Your task to perform on an android device: Search for hotels in Boston Image 0: 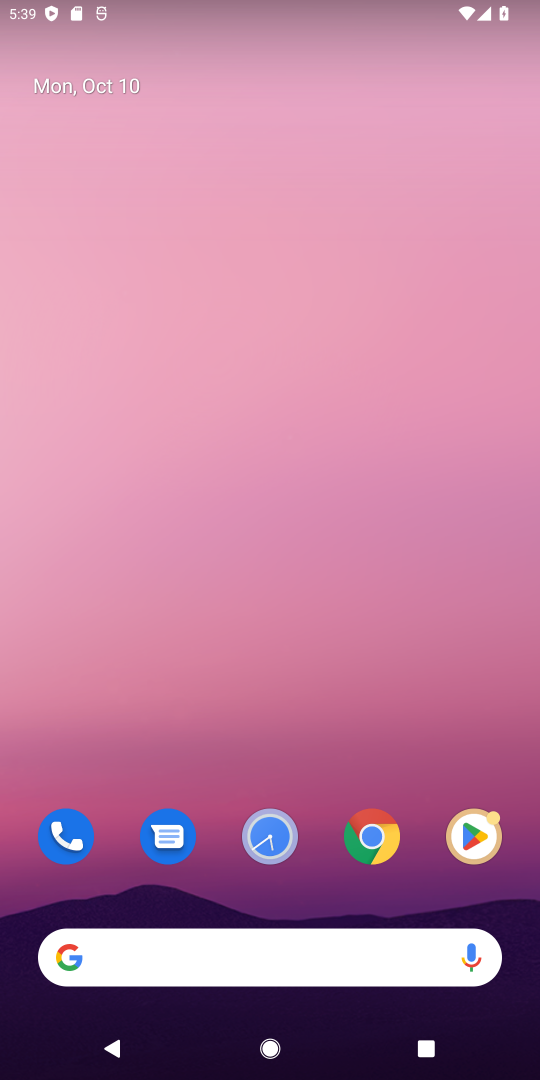
Step 0: click (369, 833)
Your task to perform on an android device: Search for hotels in Boston Image 1: 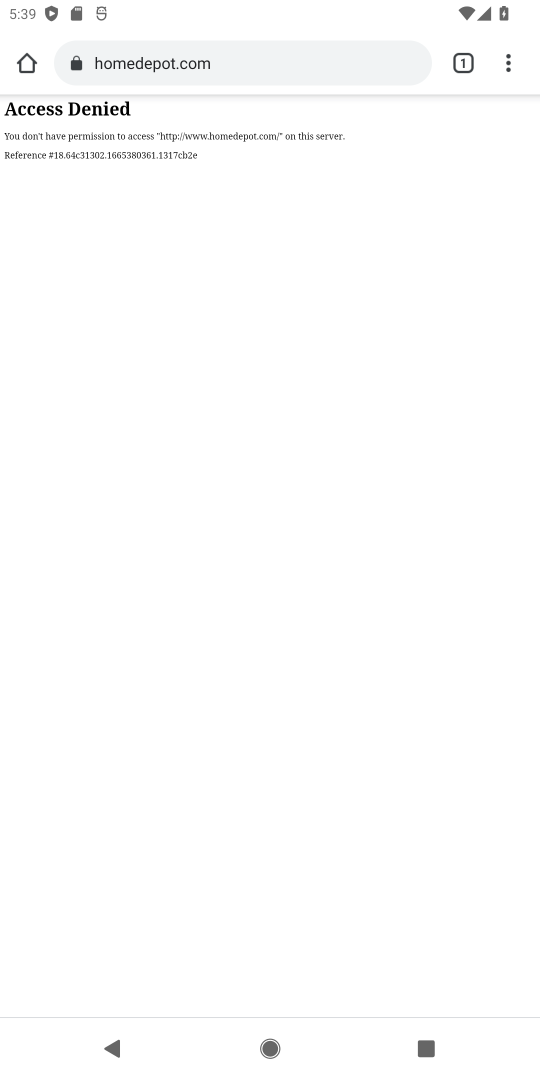
Step 1: click (275, 50)
Your task to perform on an android device: Search for hotels in Boston Image 2: 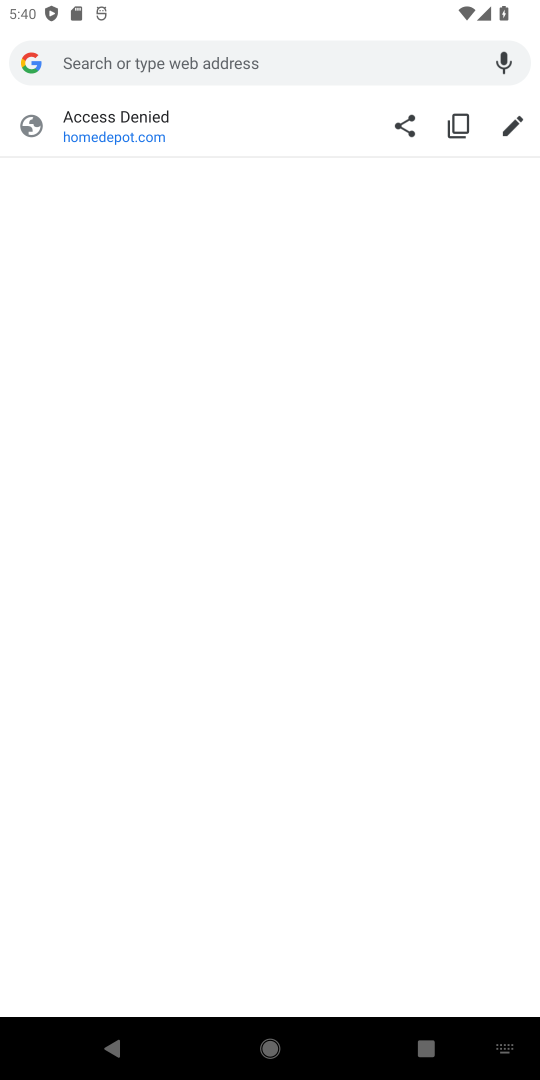
Step 2: type "hotels in Boston"
Your task to perform on an android device: Search for hotels in Boston Image 3: 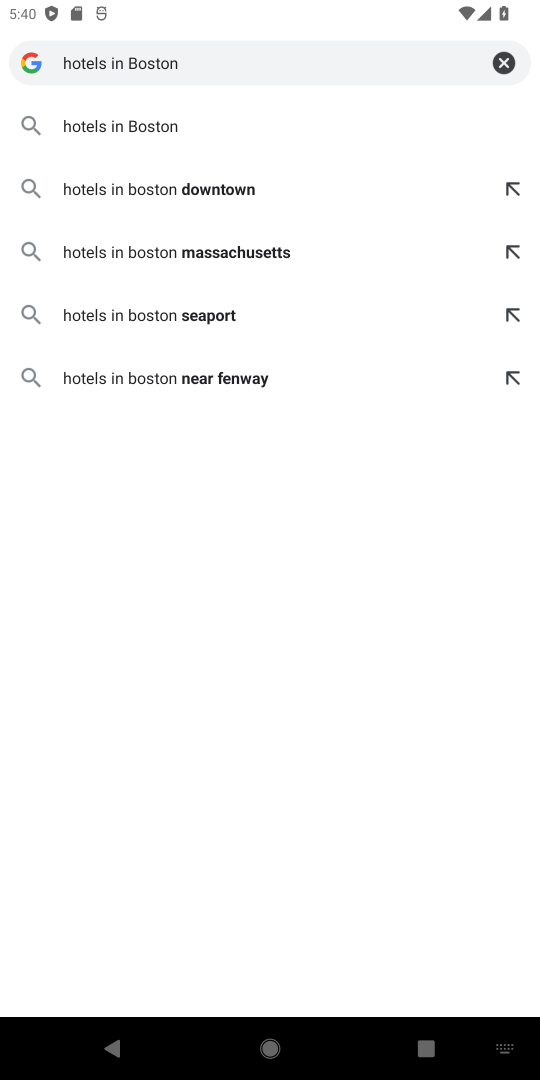
Step 3: click (143, 129)
Your task to perform on an android device: Search for hotels in Boston Image 4: 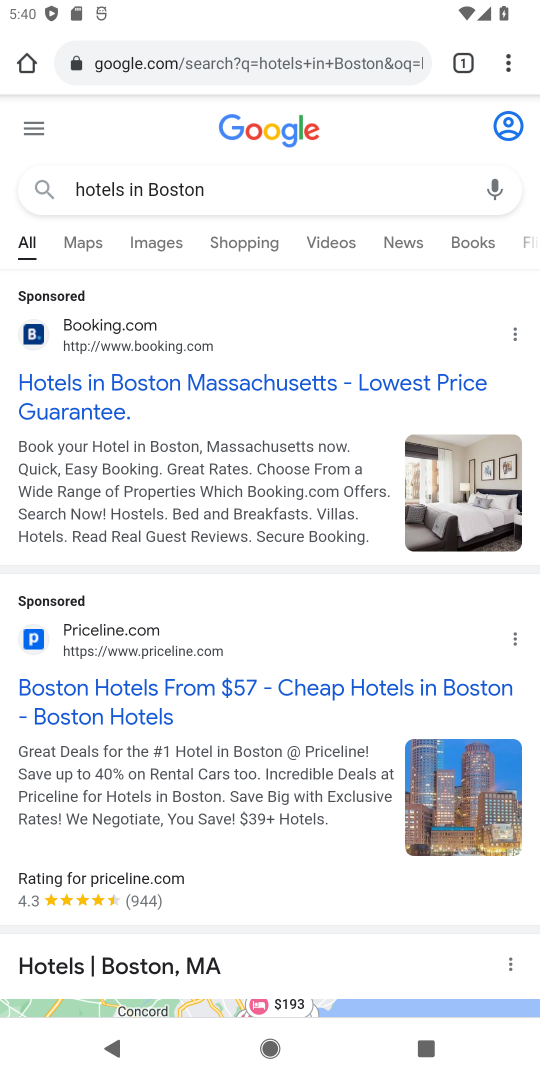
Step 4: click (102, 387)
Your task to perform on an android device: Search for hotels in Boston Image 5: 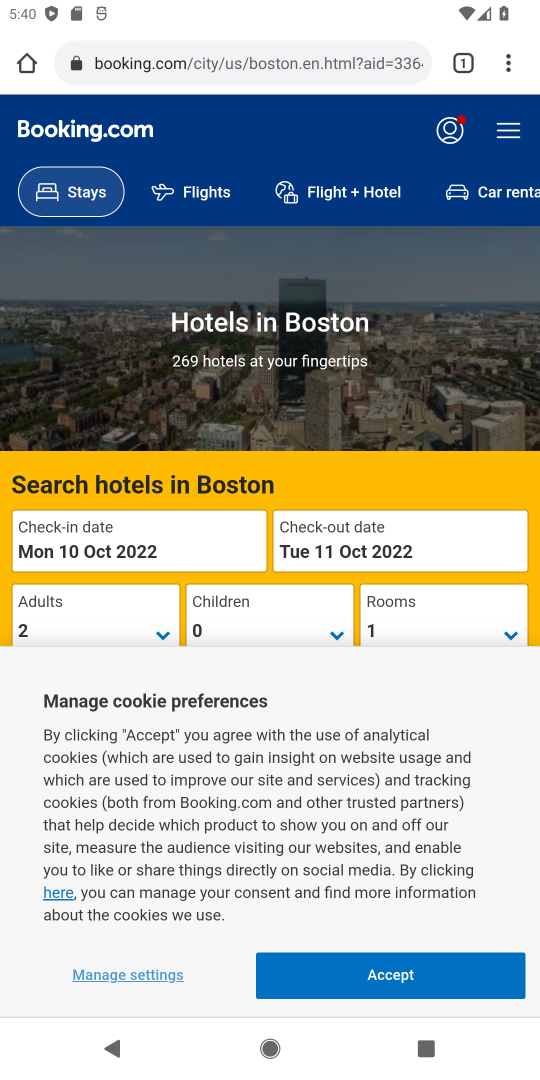
Step 5: click (386, 973)
Your task to perform on an android device: Search for hotels in Boston Image 6: 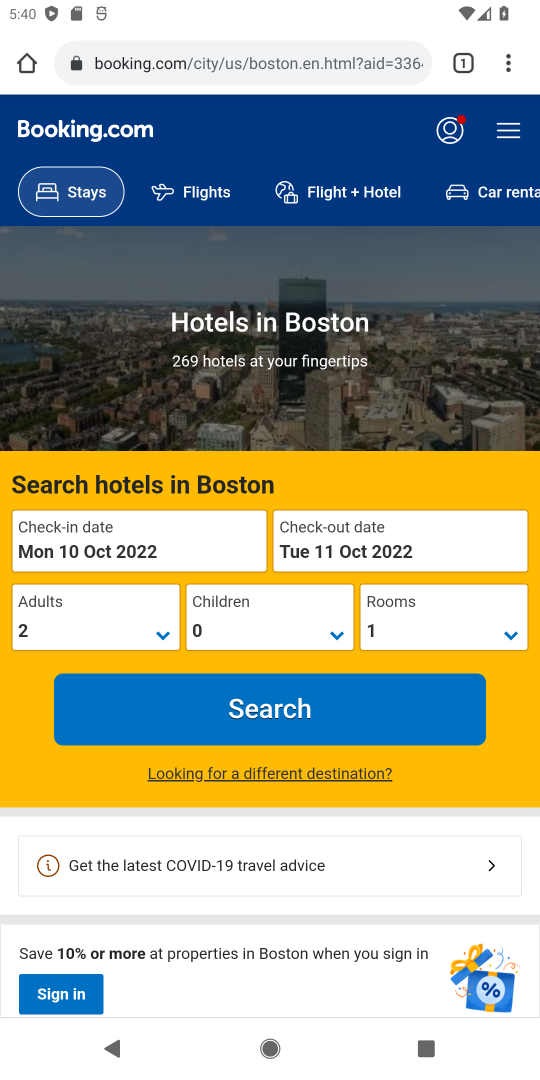
Step 6: click (259, 707)
Your task to perform on an android device: Search for hotels in Boston Image 7: 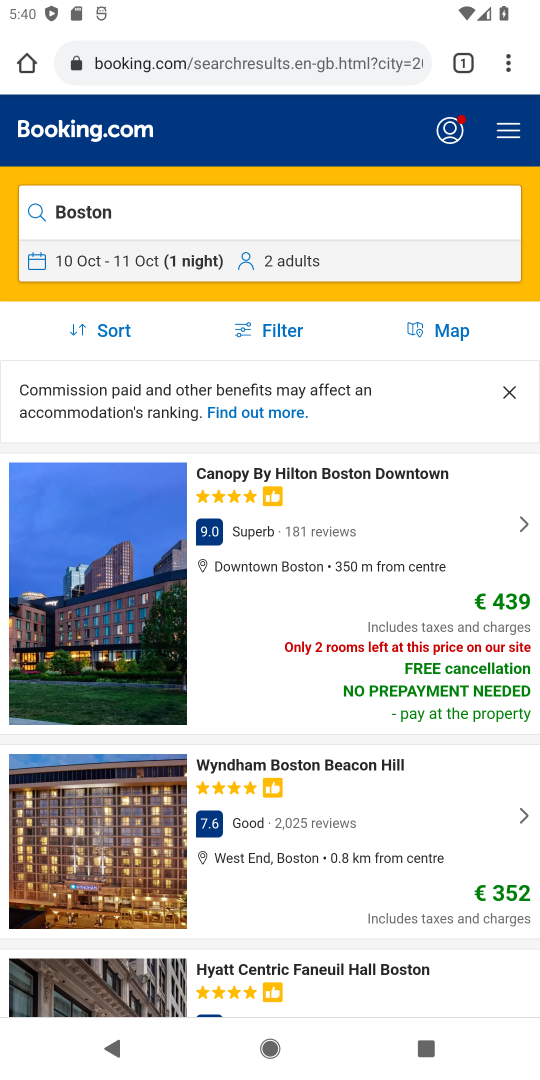
Step 7: task complete